Your task to perform on an android device: change text size in settings app Image 0: 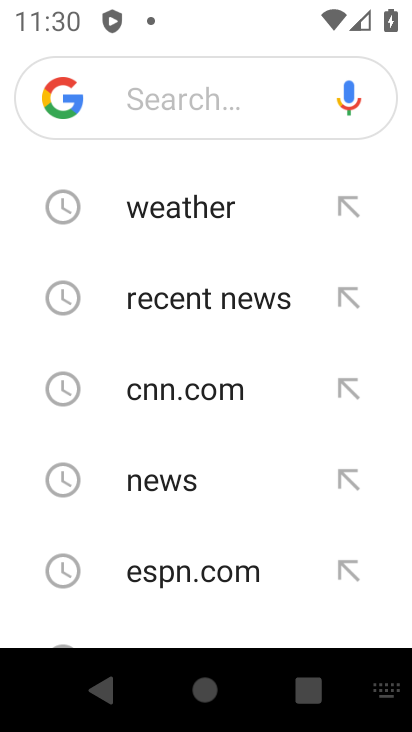
Step 0: press home button
Your task to perform on an android device: change text size in settings app Image 1: 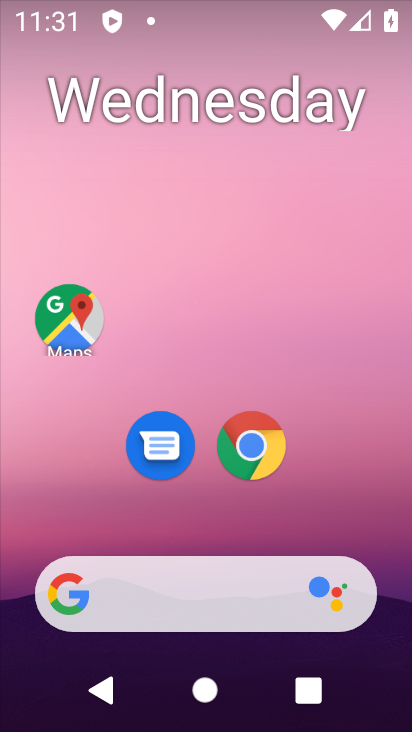
Step 1: drag from (311, 474) to (253, 239)
Your task to perform on an android device: change text size in settings app Image 2: 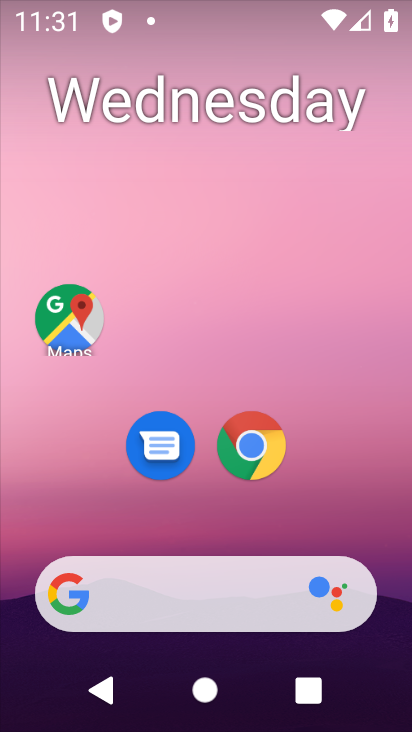
Step 2: drag from (357, 383) to (297, 211)
Your task to perform on an android device: change text size in settings app Image 3: 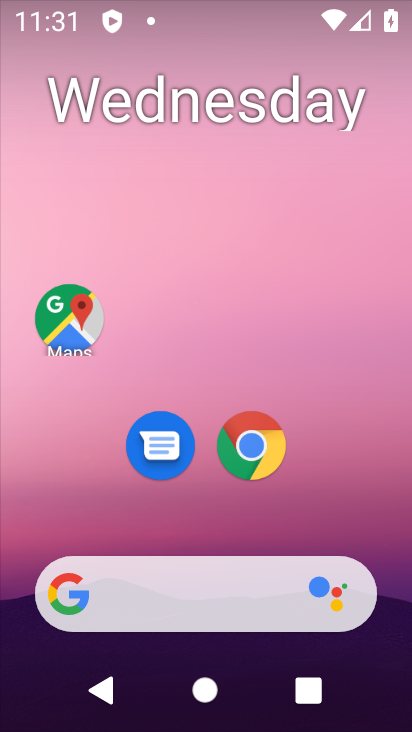
Step 3: drag from (349, 520) to (256, 181)
Your task to perform on an android device: change text size in settings app Image 4: 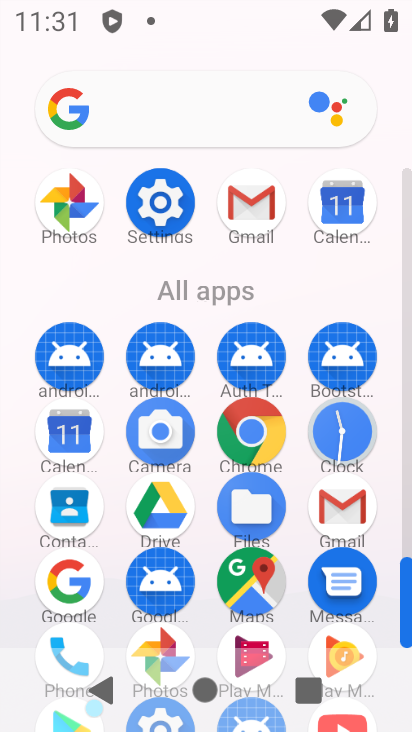
Step 4: click (144, 208)
Your task to perform on an android device: change text size in settings app Image 5: 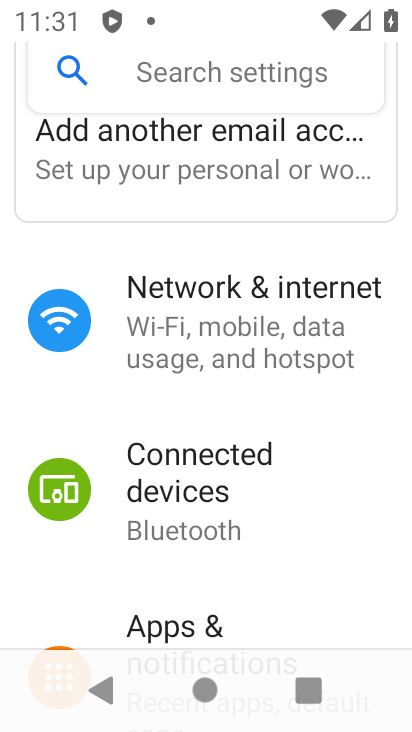
Step 5: drag from (285, 570) to (196, 276)
Your task to perform on an android device: change text size in settings app Image 6: 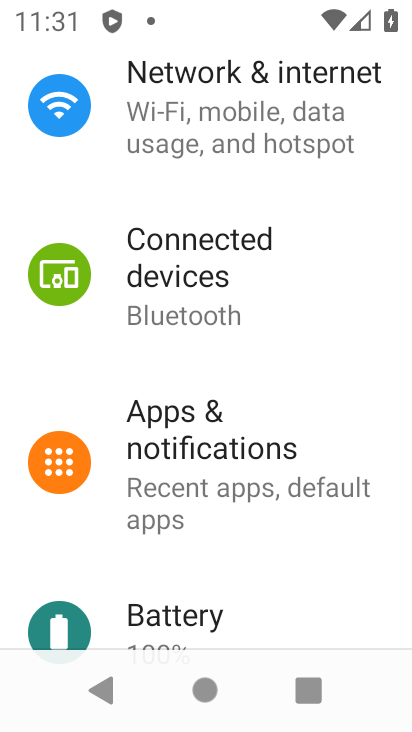
Step 6: drag from (266, 537) to (203, 192)
Your task to perform on an android device: change text size in settings app Image 7: 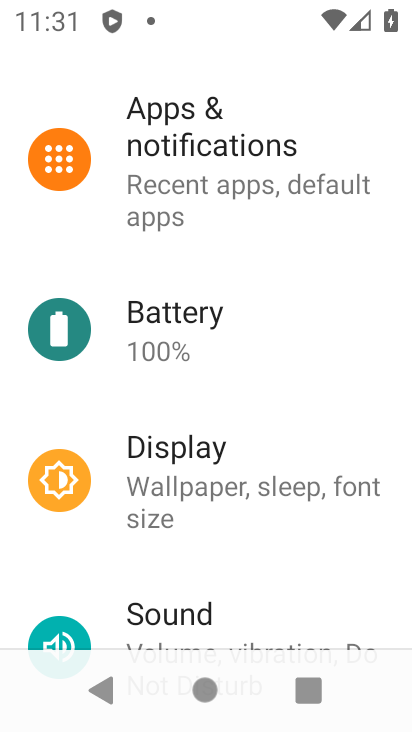
Step 7: click (225, 473)
Your task to perform on an android device: change text size in settings app Image 8: 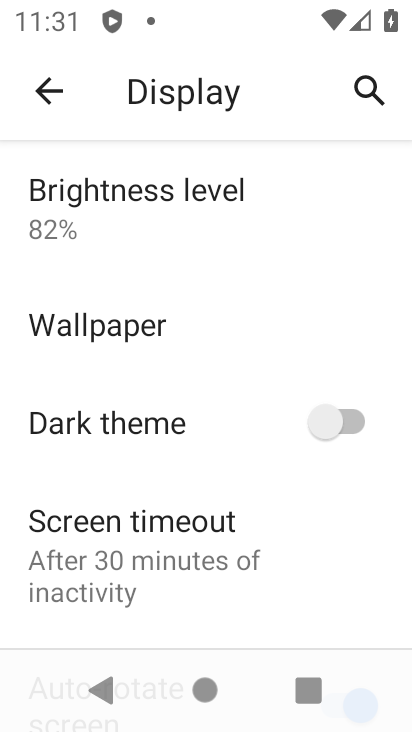
Step 8: drag from (230, 477) to (265, 525)
Your task to perform on an android device: change text size in settings app Image 9: 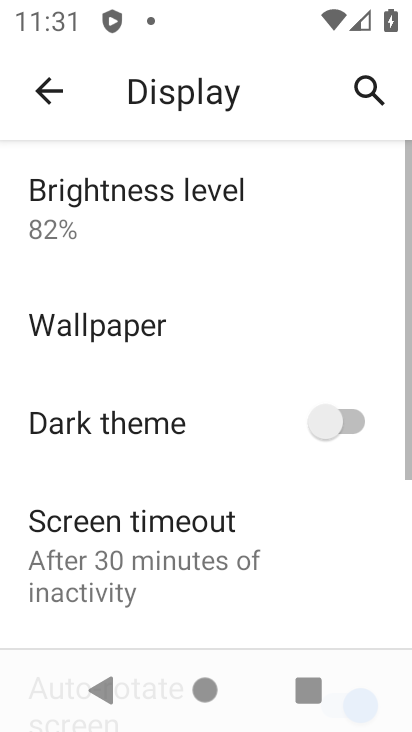
Step 9: drag from (266, 527) to (233, 197)
Your task to perform on an android device: change text size in settings app Image 10: 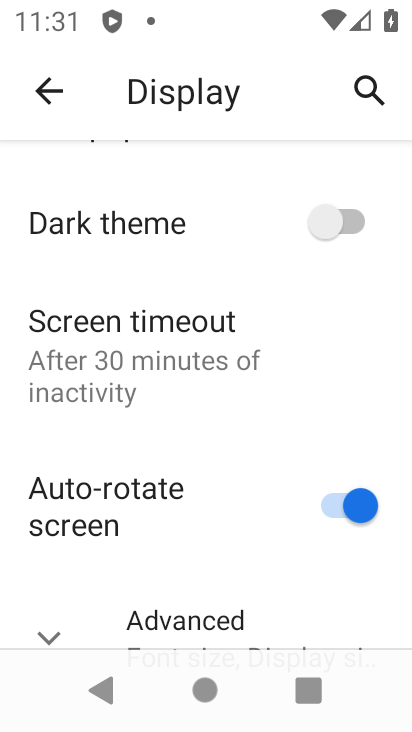
Step 10: drag from (233, 538) to (208, 127)
Your task to perform on an android device: change text size in settings app Image 11: 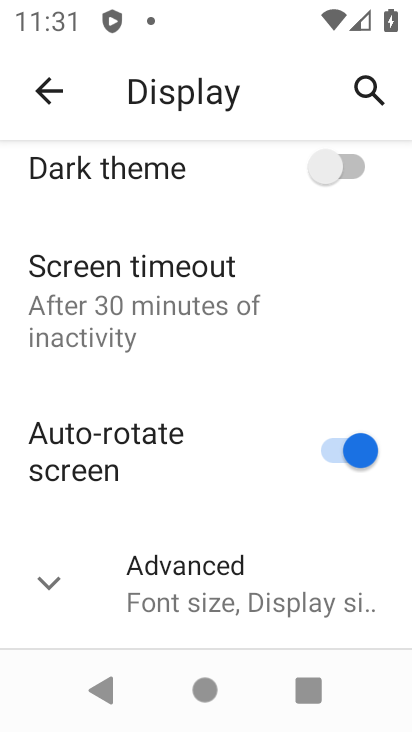
Step 11: click (222, 592)
Your task to perform on an android device: change text size in settings app Image 12: 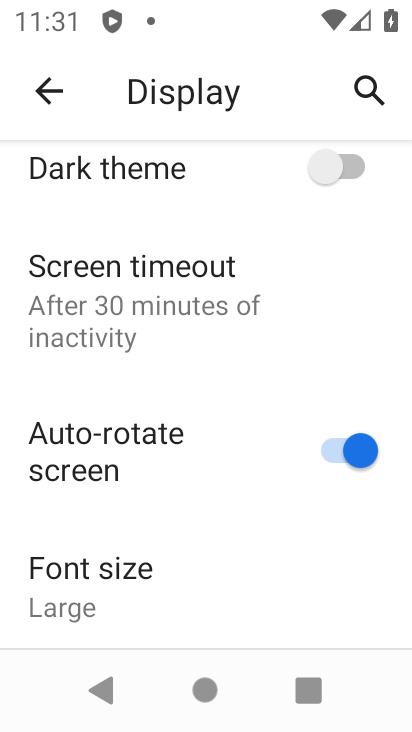
Step 12: drag from (222, 596) to (166, 189)
Your task to perform on an android device: change text size in settings app Image 13: 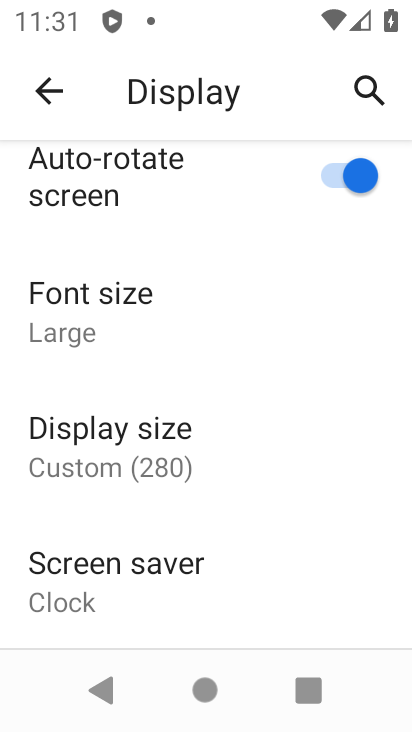
Step 13: click (111, 295)
Your task to perform on an android device: change text size in settings app Image 14: 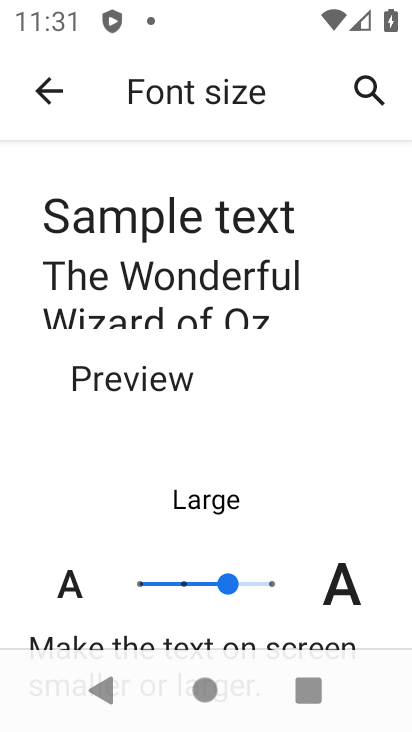
Step 14: task complete